Your task to perform on an android device: Open calendar and show me the fourth week of next month Image 0: 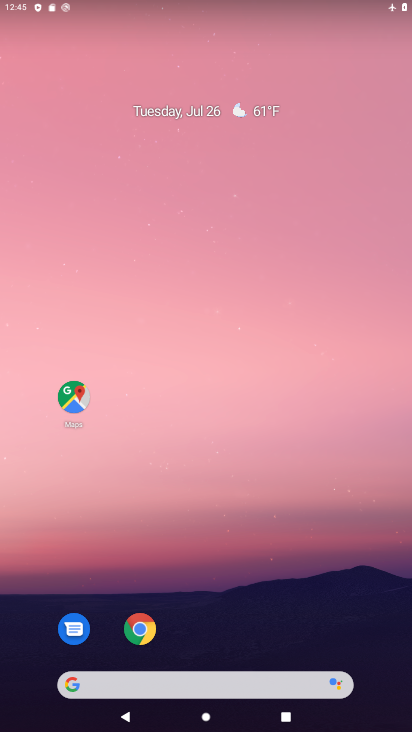
Step 0: drag from (194, 643) to (189, 52)
Your task to perform on an android device: Open calendar and show me the fourth week of next month Image 1: 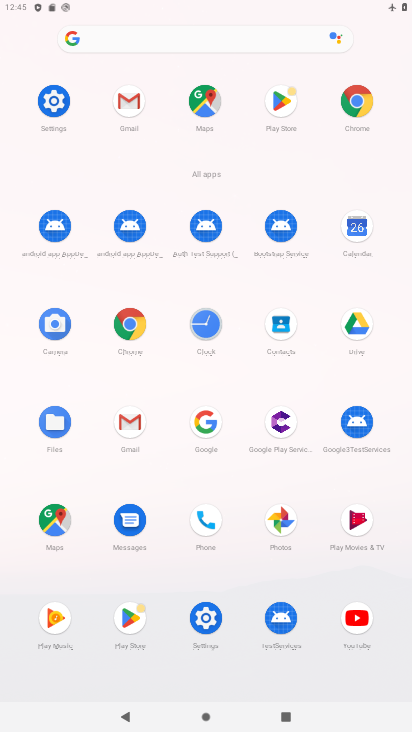
Step 1: click (366, 230)
Your task to perform on an android device: Open calendar and show me the fourth week of next month Image 2: 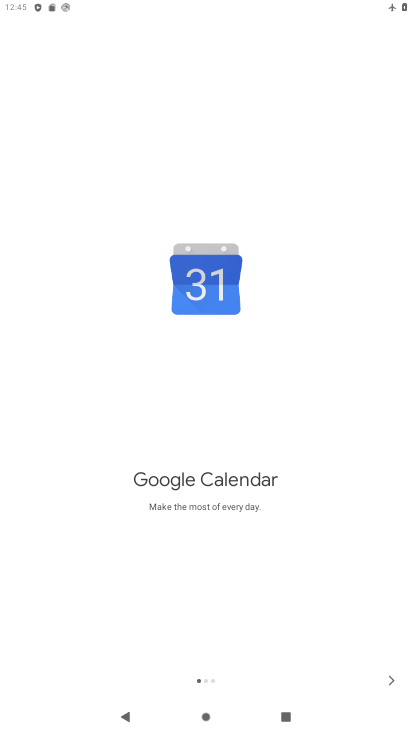
Step 2: click (393, 684)
Your task to perform on an android device: Open calendar and show me the fourth week of next month Image 3: 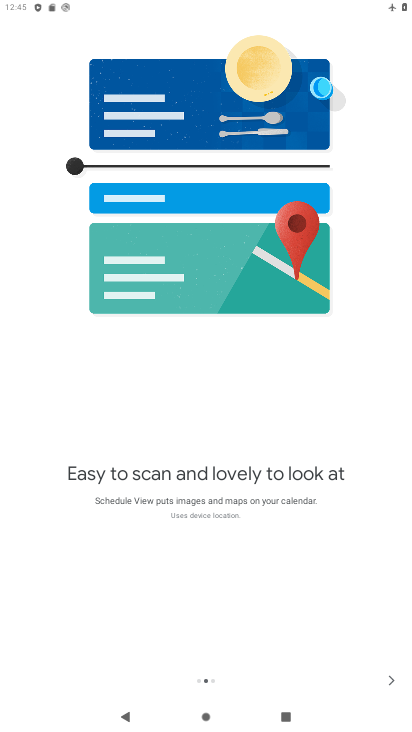
Step 3: click (393, 677)
Your task to perform on an android device: Open calendar and show me the fourth week of next month Image 4: 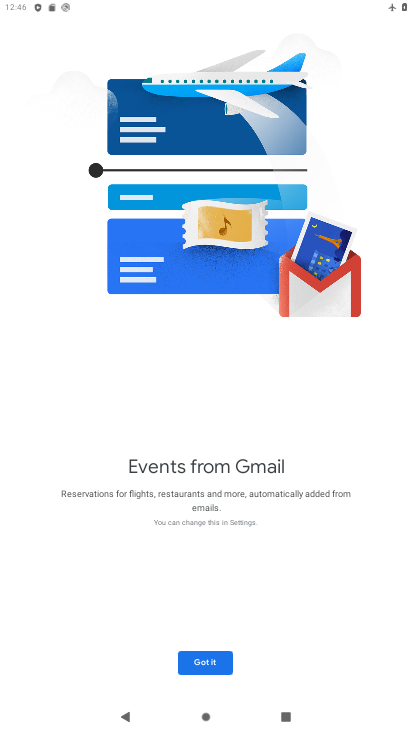
Step 4: click (209, 655)
Your task to perform on an android device: Open calendar and show me the fourth week of next month Image 5: 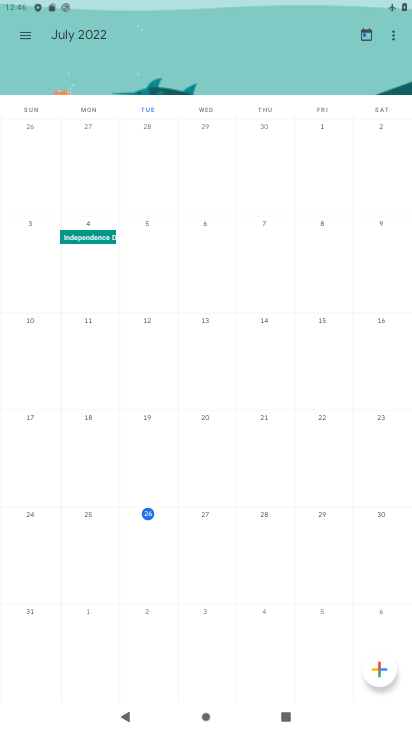
Step 5: task complete